Your task to perform on an android device: Search for Mexican restaurants on Maps Image 0: 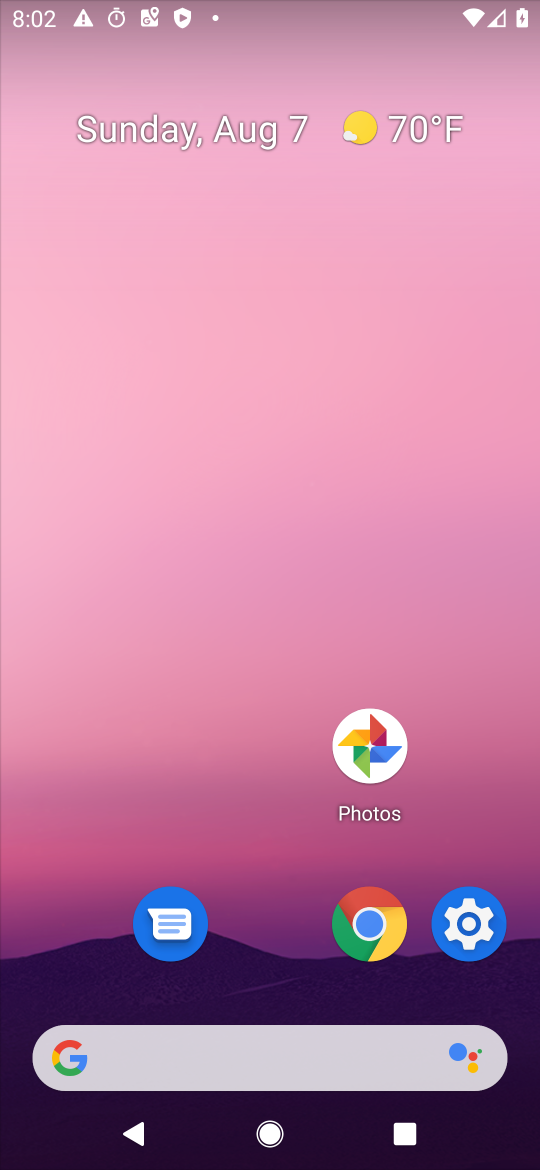
Step 0: drag from (415, 1053) to (321, 277)
Your task to perform on an android device: Search for Mexican restaurants on Maps Image 1: 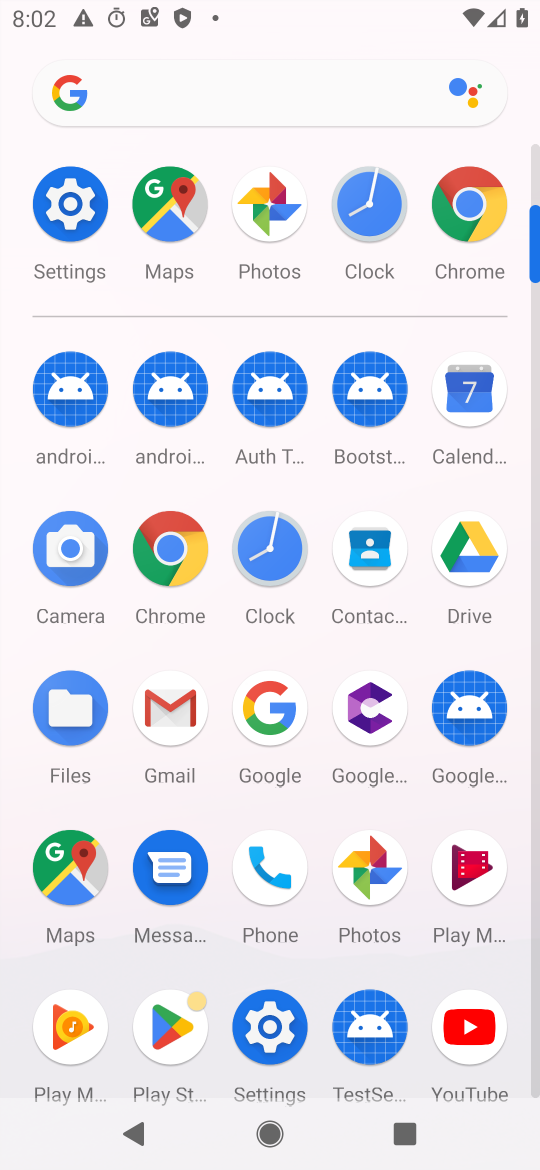
Step 1: click (172, 221)
Your task to perform on an android device: Search for Mexican restaurants on Maps Image 2: 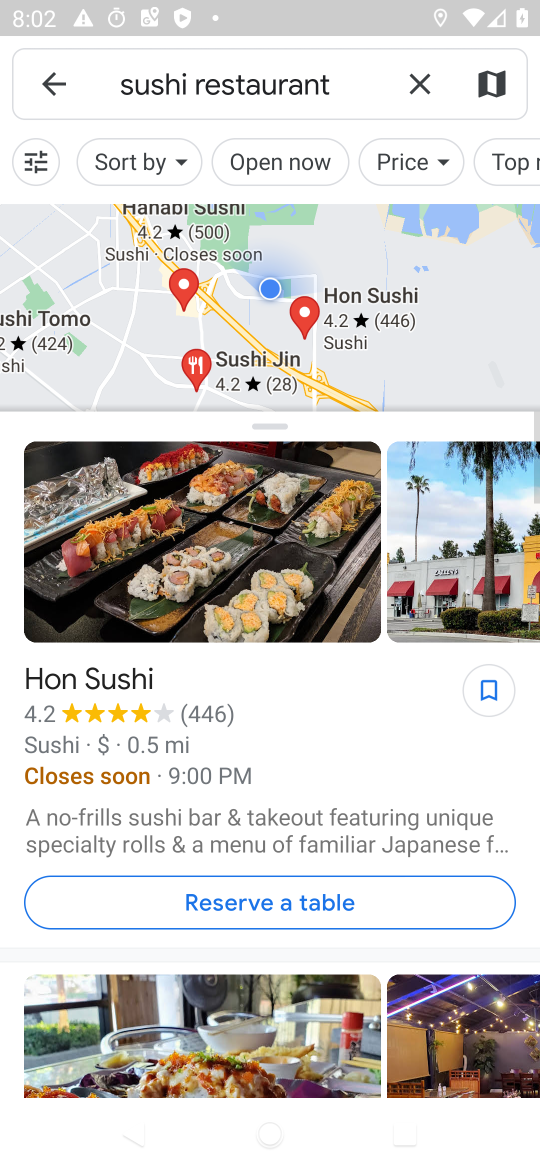
Step 2: click (412, 92)
Your task to perform on an android device: Search for Mexican restaurants on Maps Image 3: 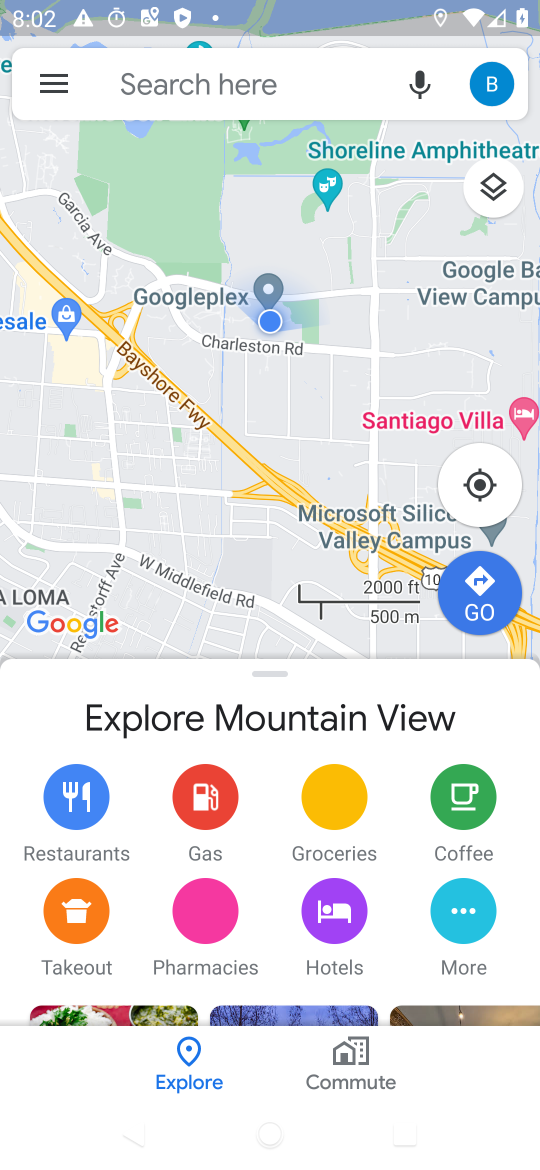
Step 3: click (256, 81)
Your task to perform on an android device: Search for Mexican restaurants on Maps Image 4: 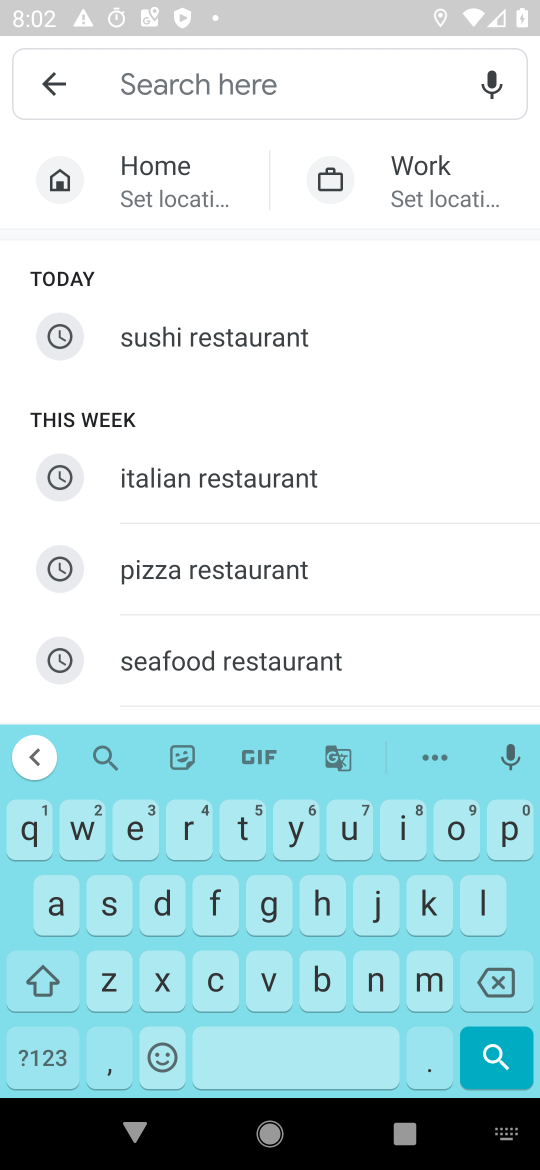
Step 4: click (423, 982)
Your task to perform on an android device: Search for Mexican restaurants on Maps Image 5: 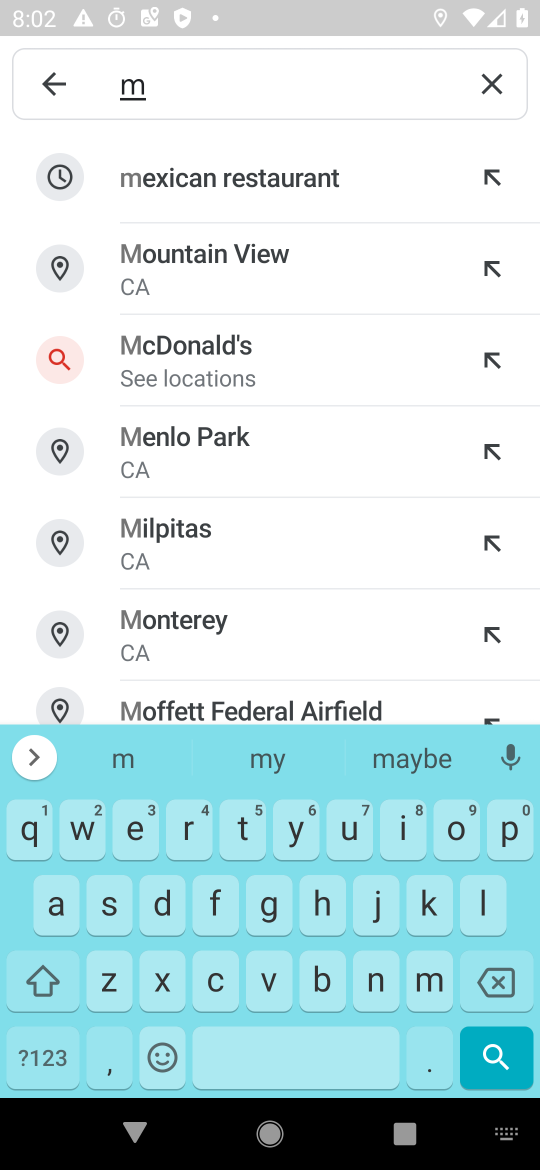
Step 5: click (251, 182)
Your task to perform on an android device: Search for Mexican restaurants on Maps Image 6: 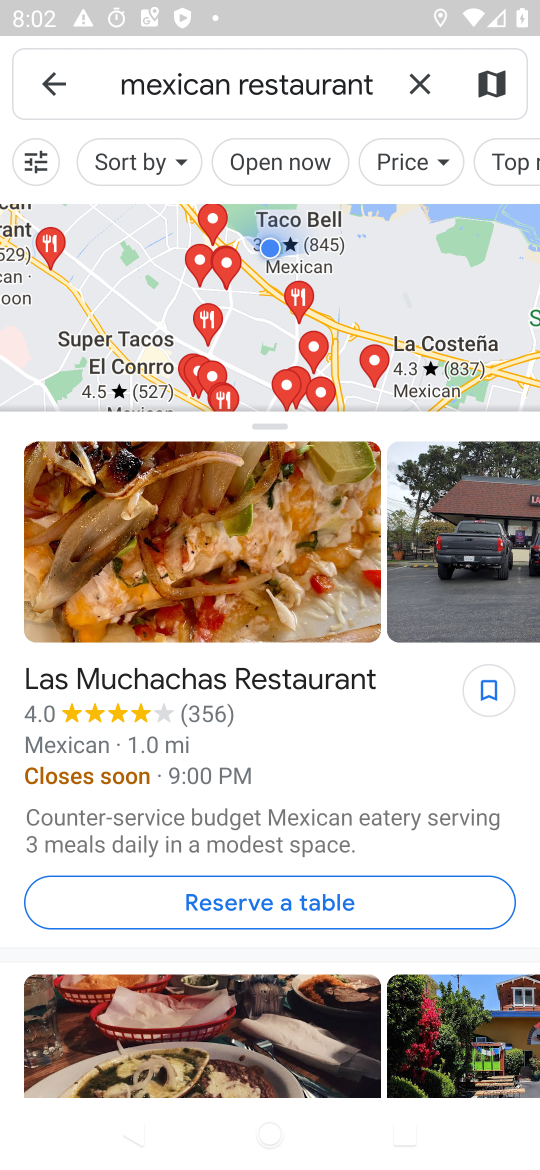
Step 6: task complete